Your task to perform on an android device: Go to sound settings Image 0: 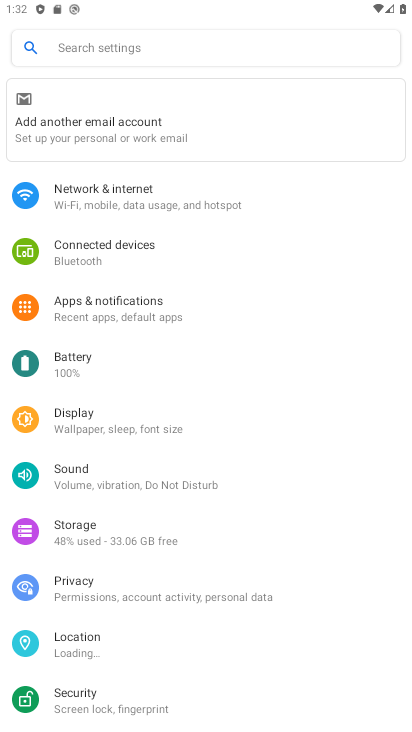
Step 0: drag from (185, 618) to (130, 366)
Your task to perform on an android device: Go to sound settings Image 1: 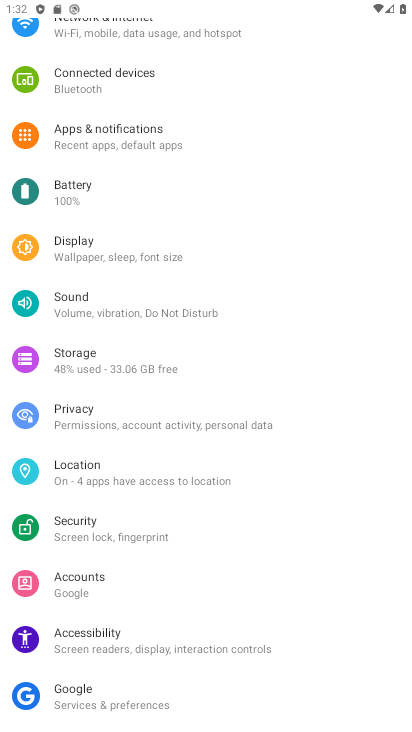
Step 1: click (124, 303)
Your task to perform on an android device: Go to sound settings Image 2: 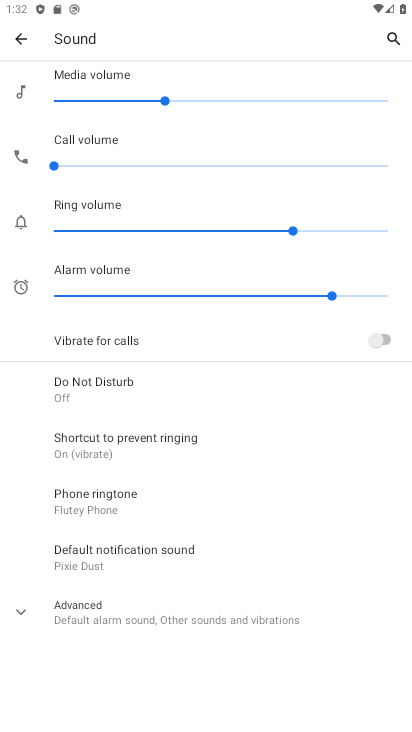
Step 2: task complete